Your task to perform on an android device: change keyboard looks Image 0: 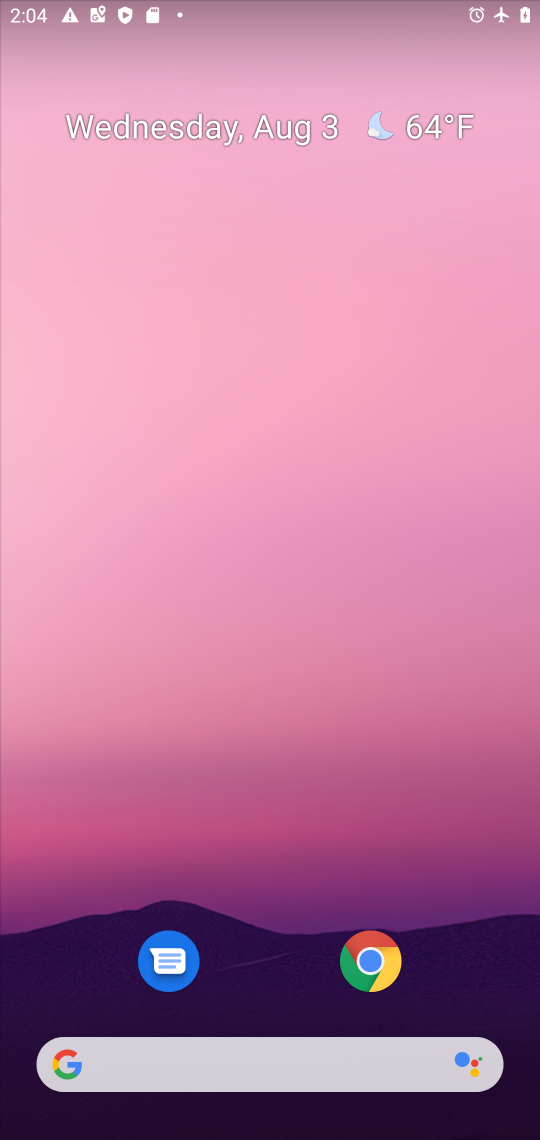
Step 0: drag from (289, 981) to (291, 12)
Your task to perform on an android device: change keyboard looks Image 1: 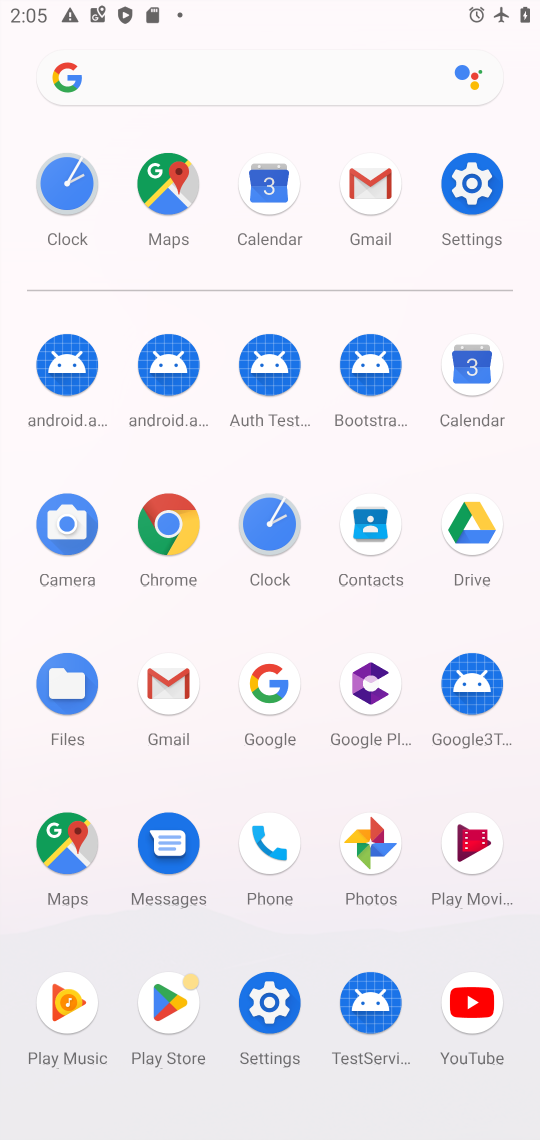
Step 1: click (479, 185)
Your task to perform on an android device: change keyboard looks Image 2: 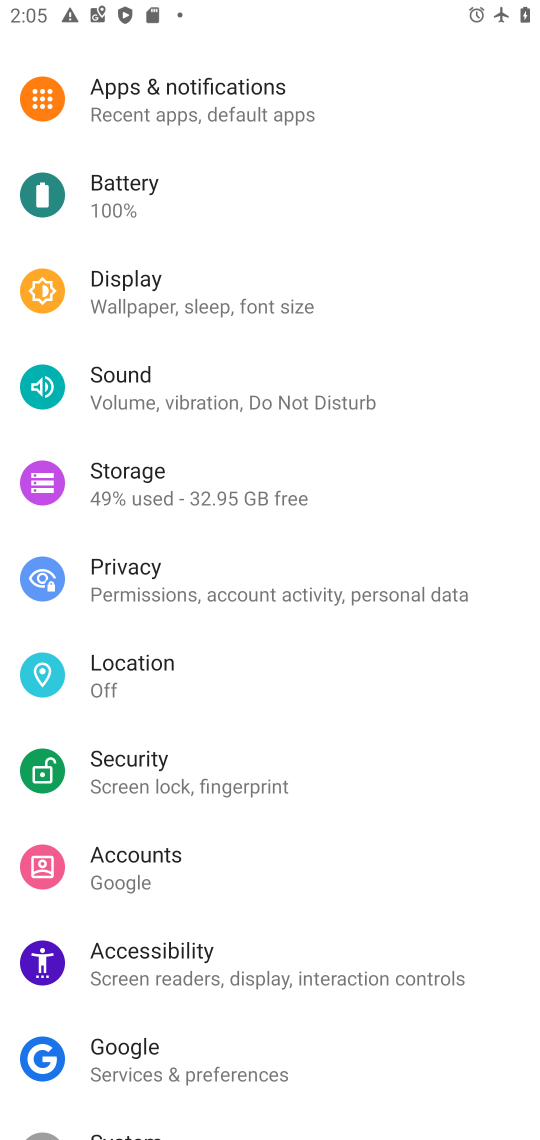
Step 2: drag from (494, 1001) to (519, 567)
Your task to perform on an android device: change keyboard looks Image 3: 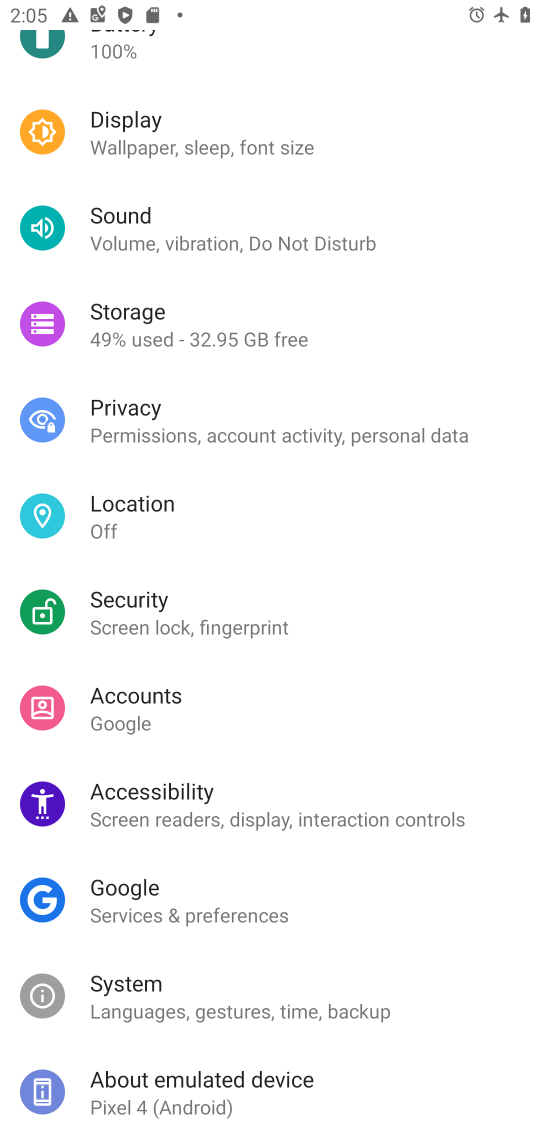
Step 3: click (103, 992)
Your task to perform on an android device: change keyboard looks Image 4: 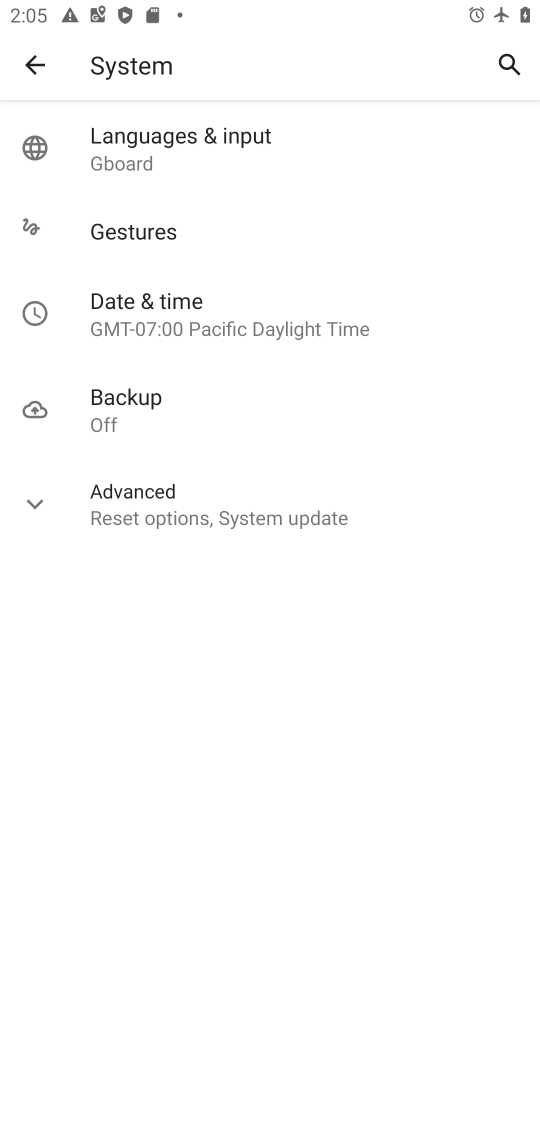
Step 4: click (131, 141)
Your task to perform on an android device: change keyboard looks Image 5: 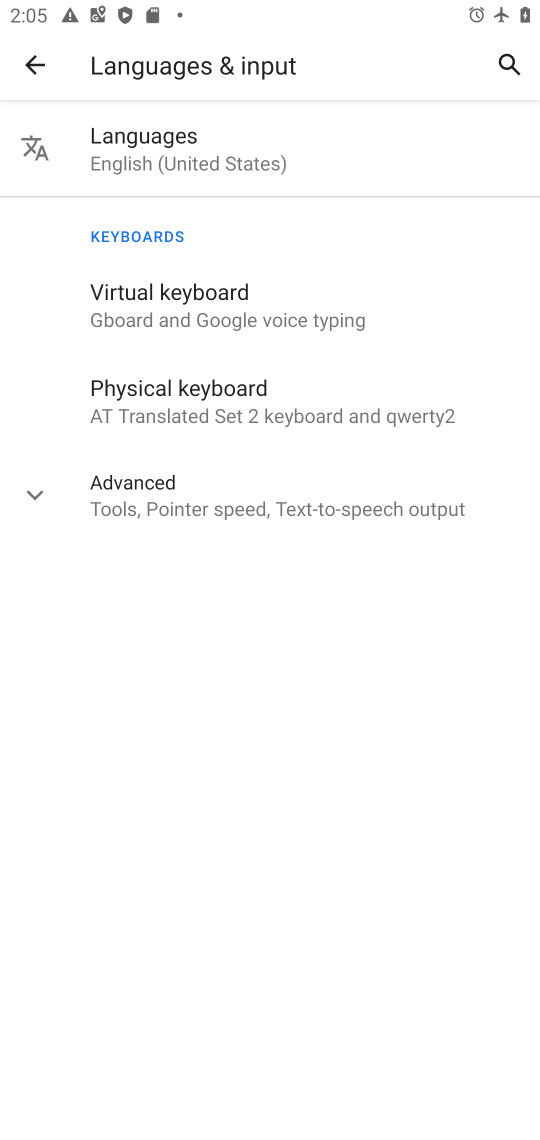
Step 5: click (161, 302)
Your task to perform on an android device: change keyboard looks Image 6: 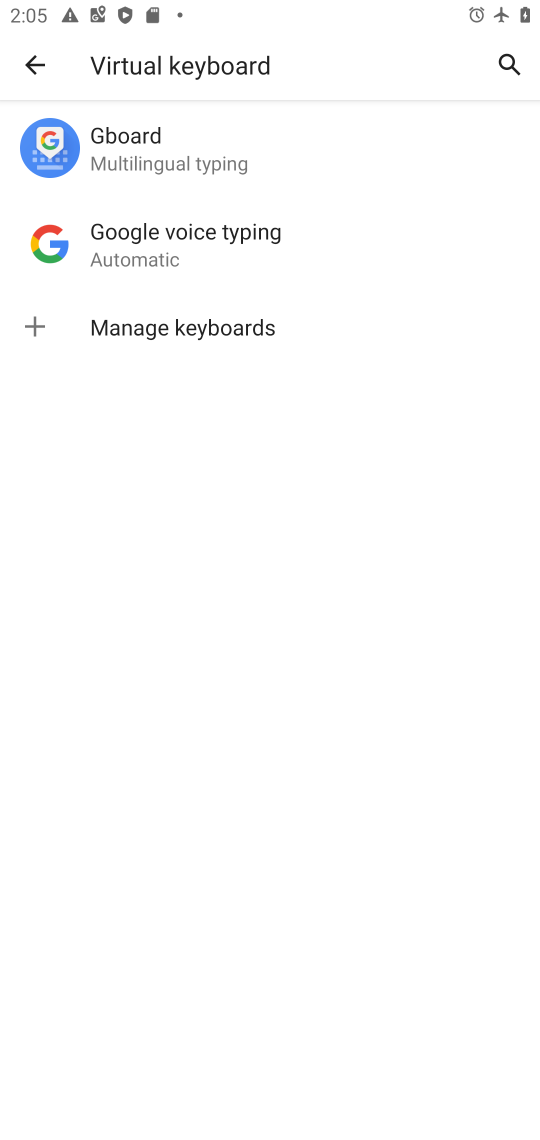
Step 6: click (120, 156)
Your task to perform on an android device: change keyboard looks Image 7: 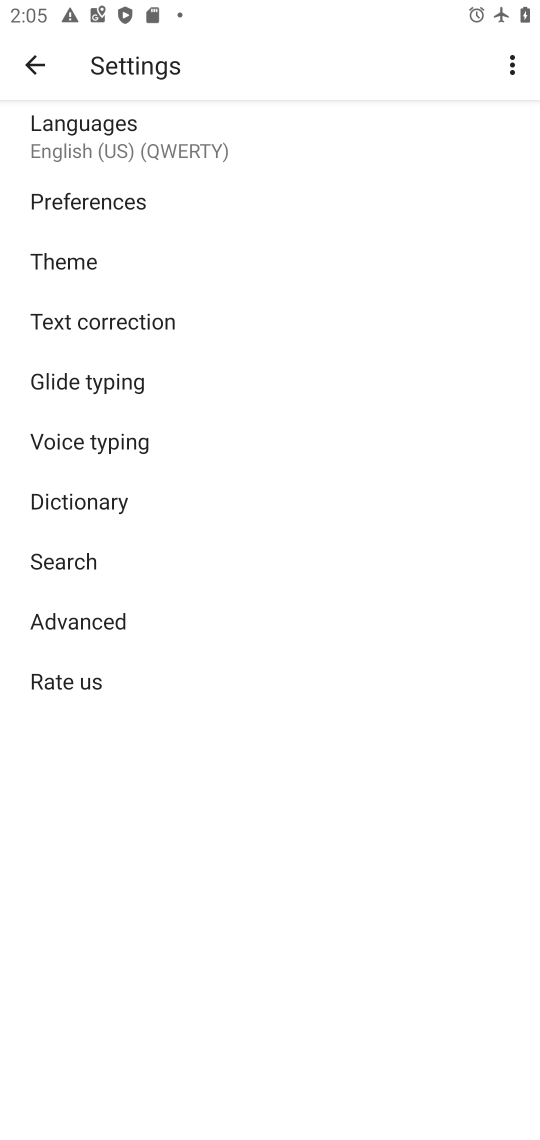
Step 7: click (69, 257)
Your task to perform on an android device: change keyboard looks Image 8: 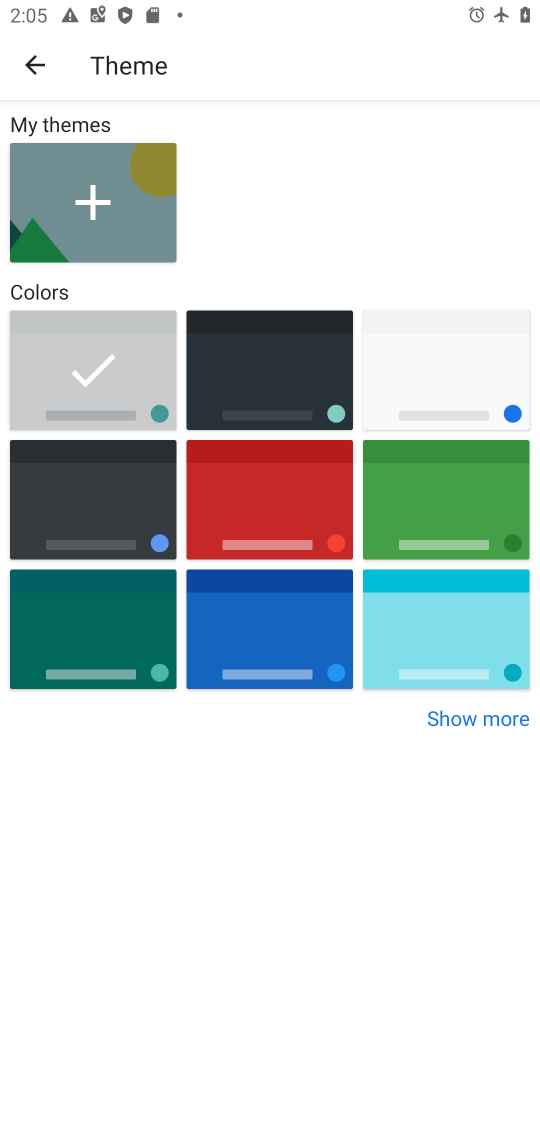
Step 8: click (247, 506)
Your task to perform on an android device: change keyboard looks Image 9: 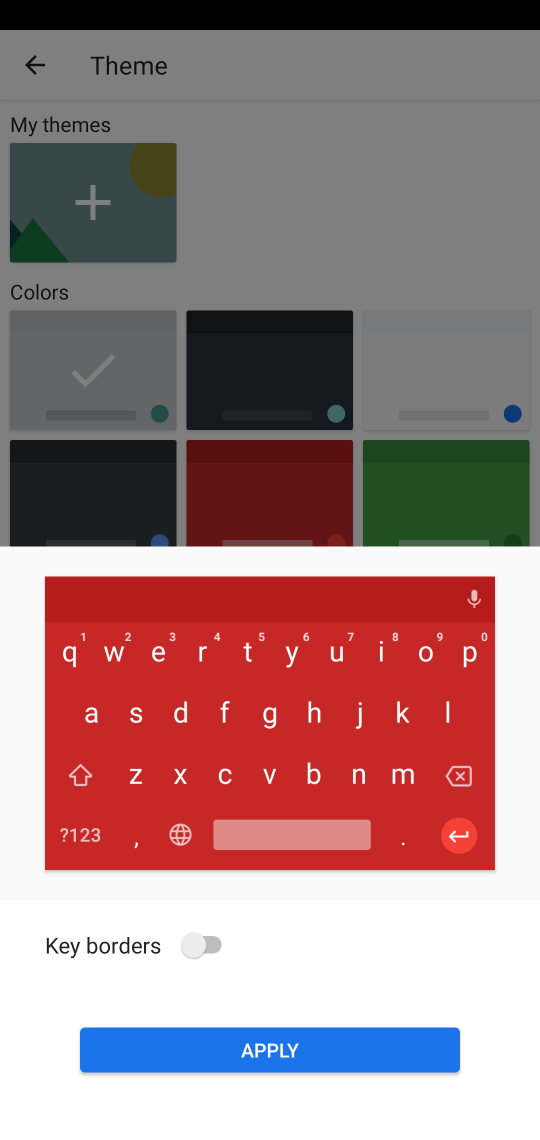
Step 9: click (205, 944)
Your task to perform on an android device: change keyboard looks Image 10: 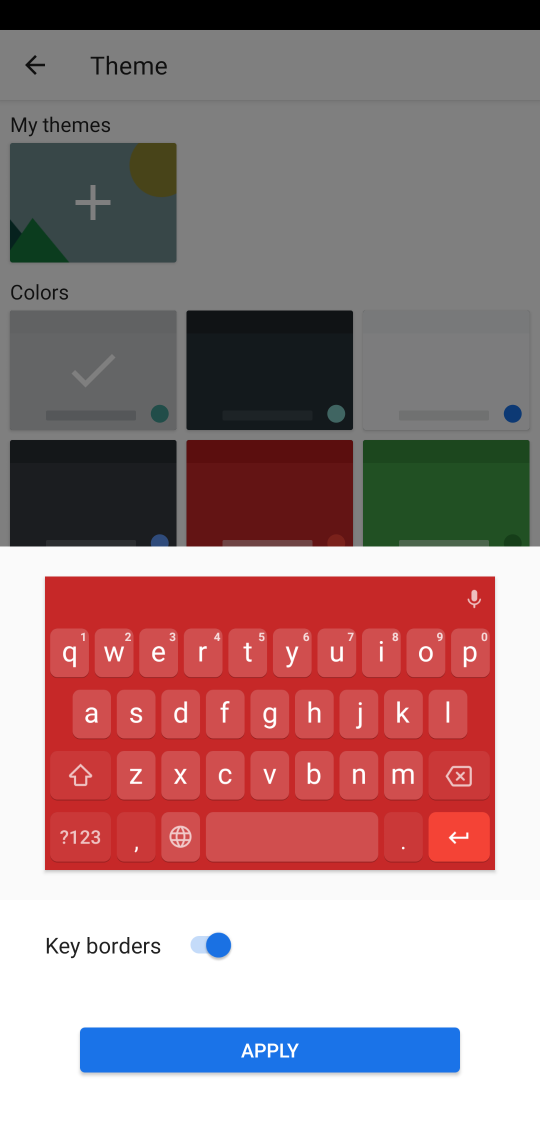
Step 10: click (172, 1056)
Your task to perform on an android device: change keyboard looks Image 11: 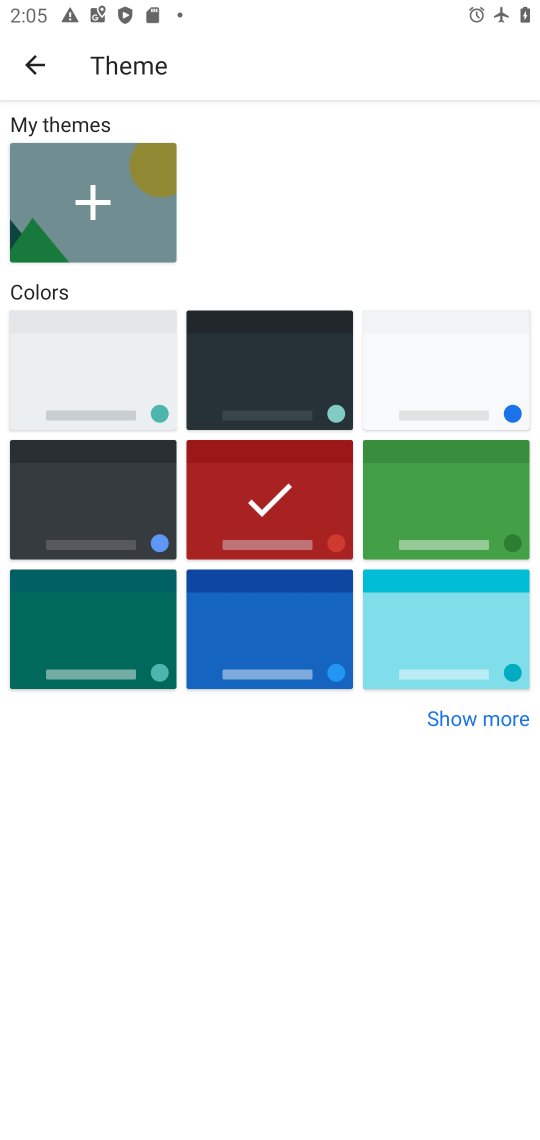
Step 11: task complete